Your task to perform on an android device: What's on my calendar today? Image 0: 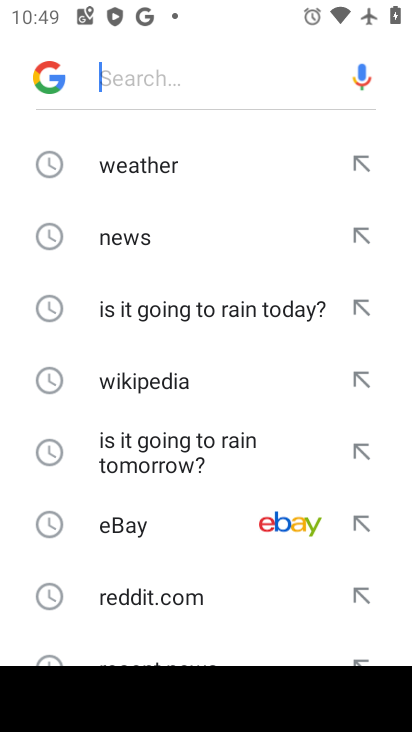
Step 0: press home button
Your task to perform on an android device: What's on my calendar today? Image 1: 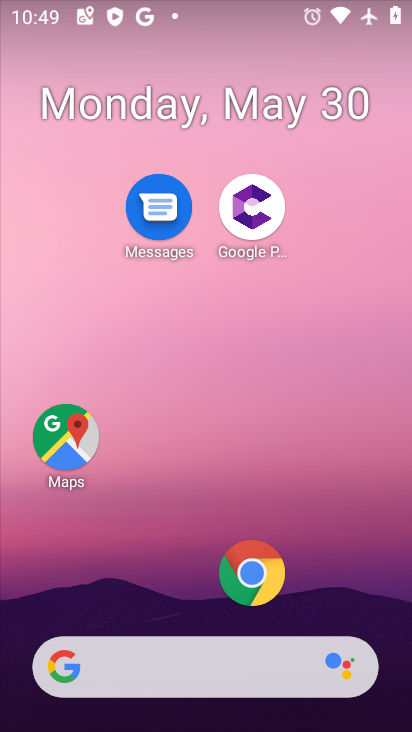
Step 1: drag from (173, 673) to (245, 133)
Your task to perform on an android device: What's on my calendar today? Image 2: 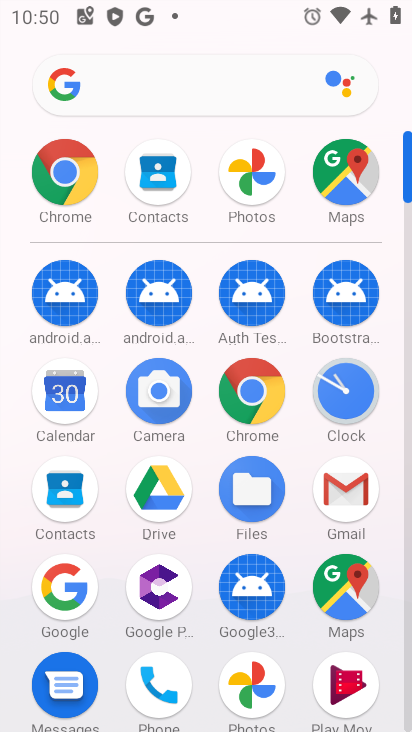
Step 2: click (59, 415)
Your task to perform on an android device: What's on my calendar today? Image 3: 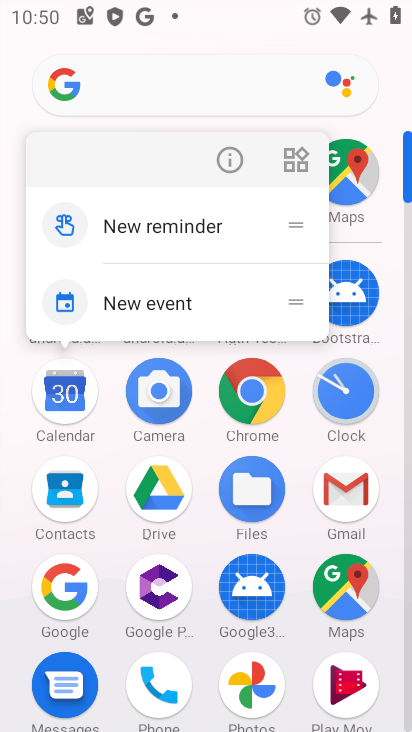
Step 3: click (67, 389)
Your task to perform on an android device: What's on my calendar today? Image 4: 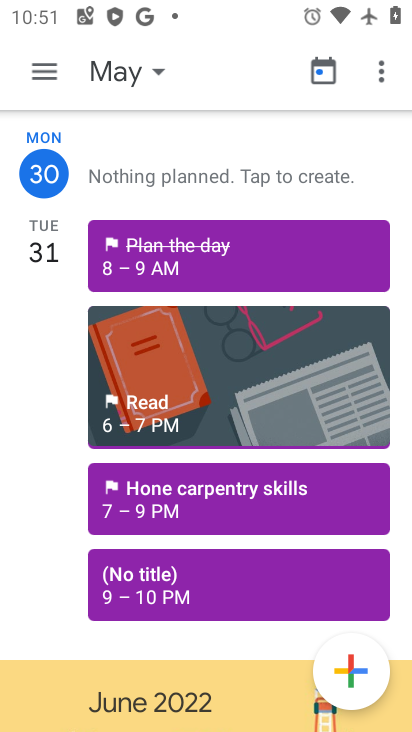
Step 4: click (155, 87)
Your task to perform on an android device: What's on my calendar today? Image 5: 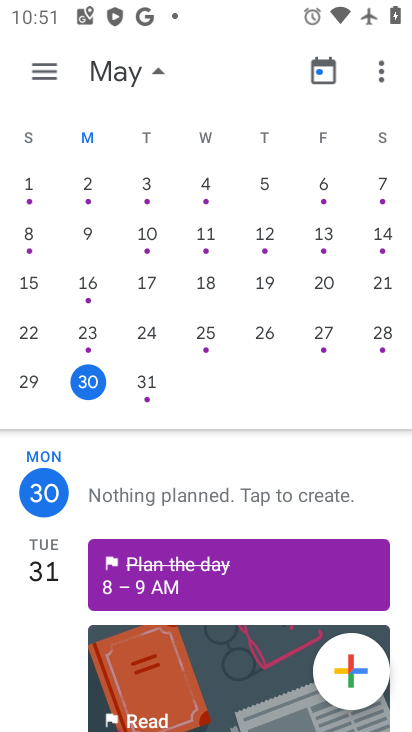
Step 5: task complete